Your task to perform on an android device: Go to privacy settings Image 0: 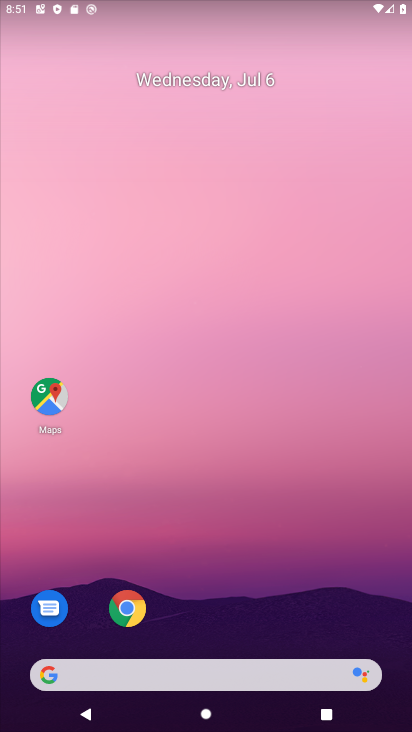
Step 0: drag from (205, 659) to (205, 235)
Your task to perform on an android device: Go to privacy settings Image 1: 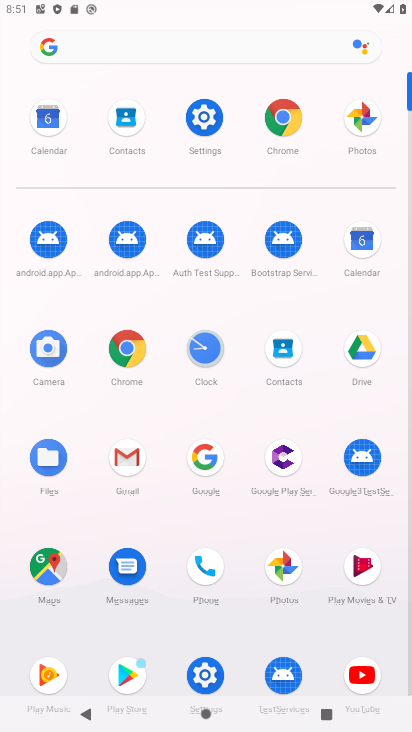
Step 1: click (201, 122)
Your task to perform on an android device: Go to privacy settings Image 2: 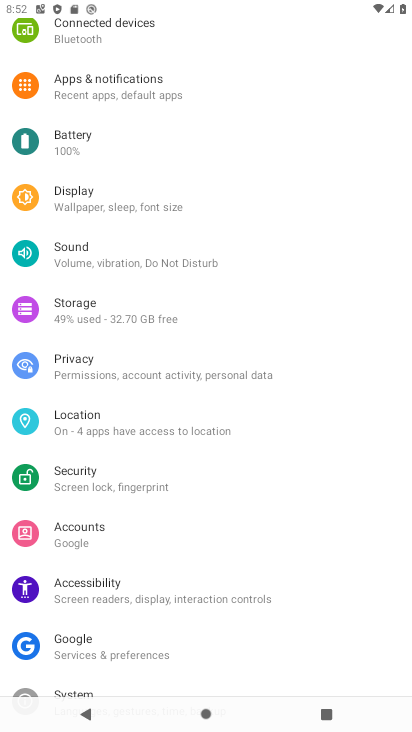
Step 2: click (87, 374)
Your task to perform on an android device: Go to privacy settings Image 3: 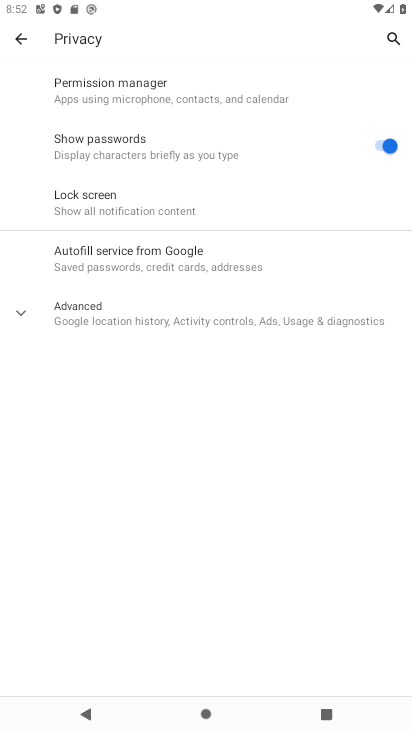
Step 3: click (69, 310)
Your task to perform on an android device: Go to privacy settings Image 4: 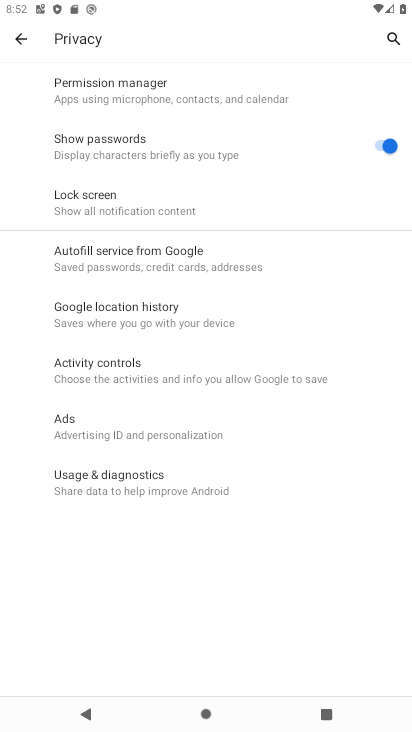
Step 4: task complete